Your task to perform on an android device: Go to Reddit.com Image 0: 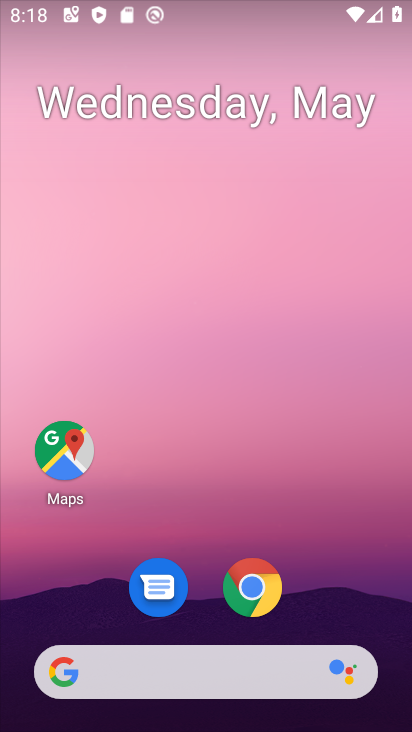
Step 0: click (254, 590)
Your task to perform on an android device: Go to Reddit.com Image 1: 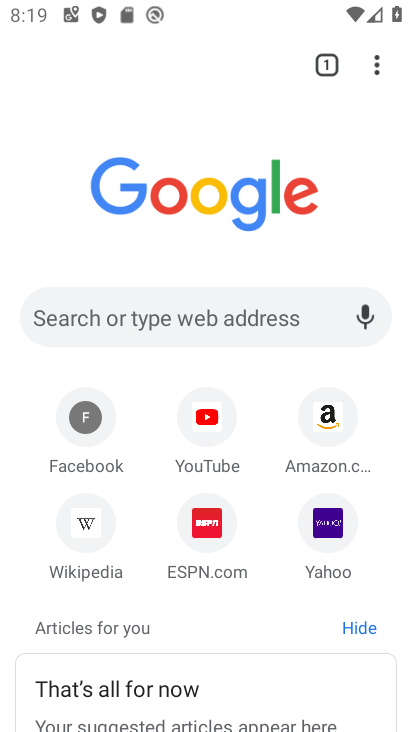
Step 1: click (162, 310)
Your task to perform on an android device: Go to Reddit.com Image 2: 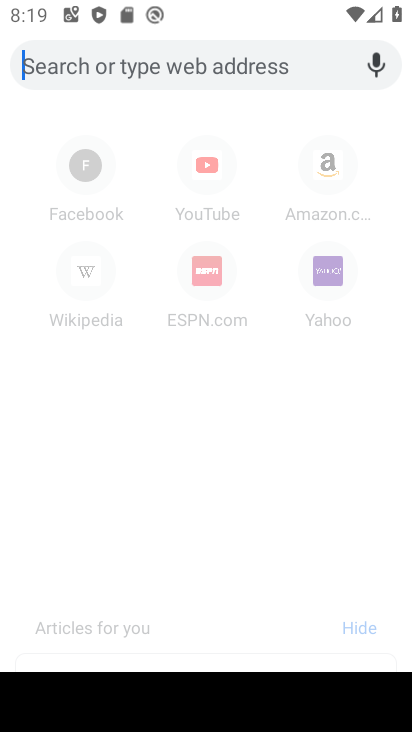
Step 2: type "reddit.com"
Your task to perform on an android device: Go to Reddit.com Image 3: 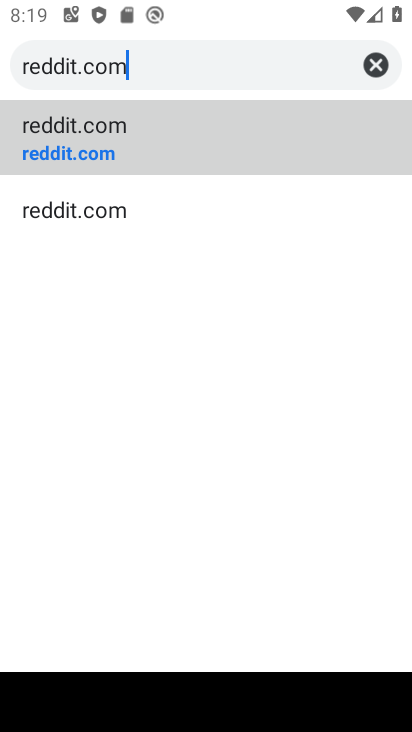
Step 3: click (68, 135)
Your task to perform on an android device: Go to Reddit.com Image 4: 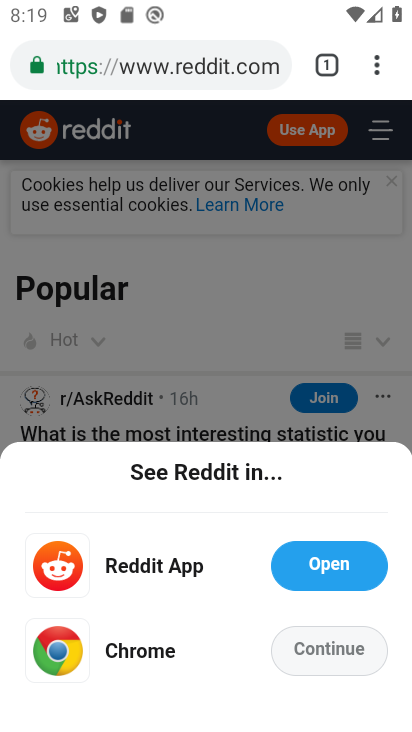
Step 4: task complete